Your task to perform on an android device: turn off translation in the chrome app Image 0: 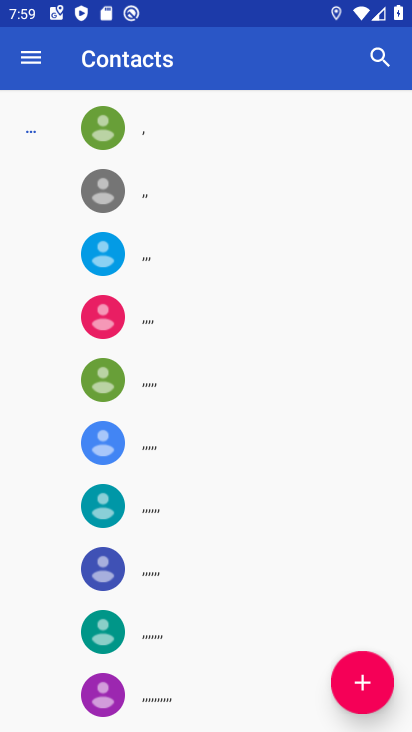
Step 0: press home button
Your task to perform on an android device: turn off translation in the chrome app Image 1: 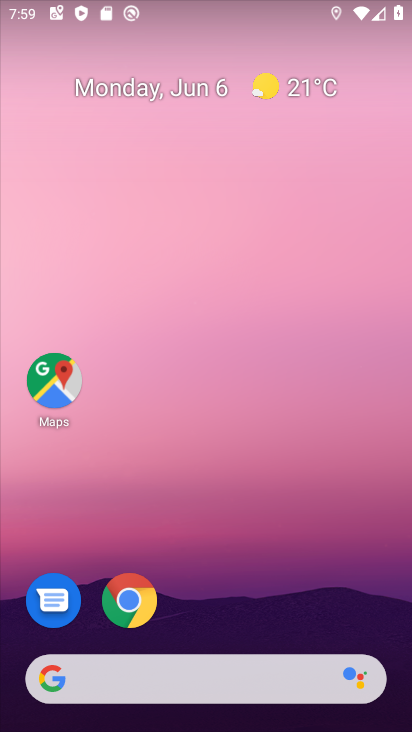
Step 1: click (128, 601)
Your task to perform on an android device: turn off translation in the chrome app Image 2: 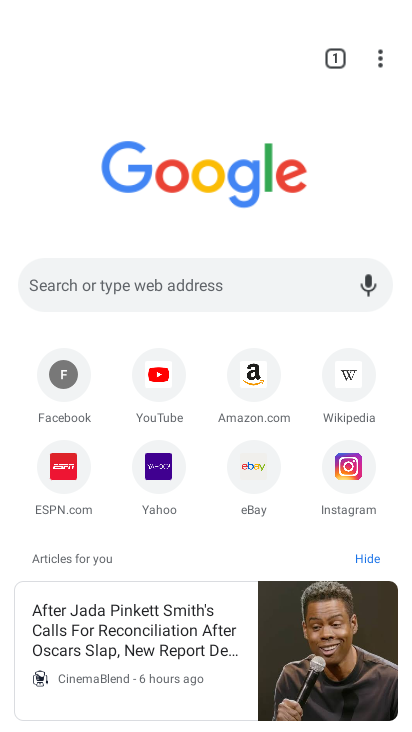
Step 2: click (382, 64)
Your task to perform on an android device: turn off translation in the chrome app Image 3: 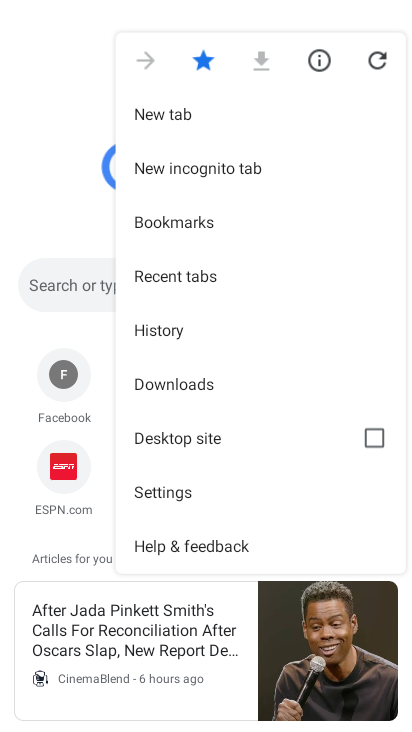
Step 3: click (182, 495)
Your task to perform on an android device: turn off translation in the chrome app Image 4: 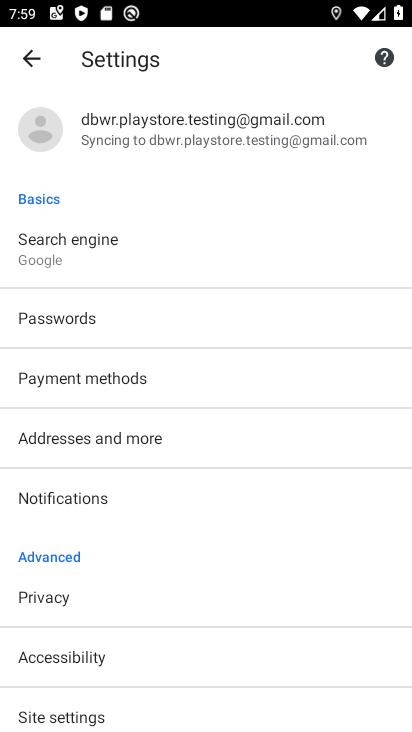
Step 4: drag from (160, 684) to (171, 365)
Your task to perform on an android device: turn off translation in the chrome app Image 5: 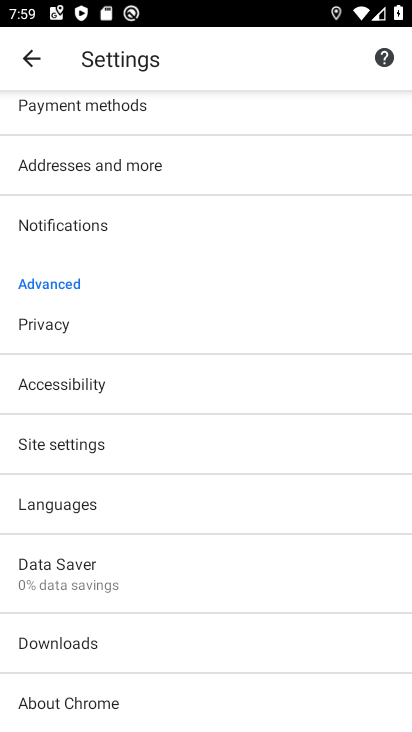
Step 5: click (59, 490)
Your task to perform on an android device: turn off translation in the chrome app Image 6: 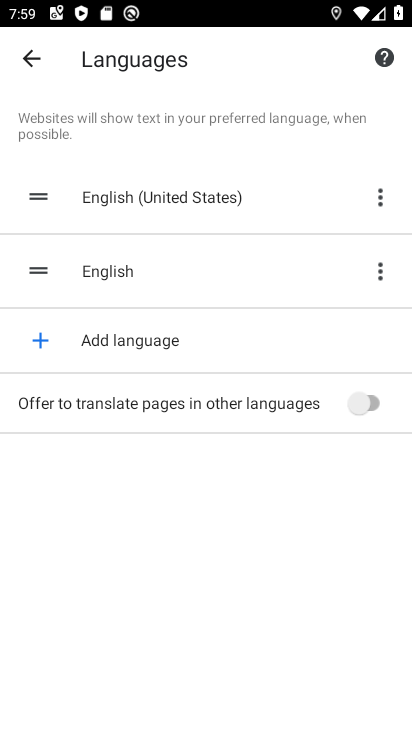
Step 6: task complete